Your task to perform on an android device: Open Yahoo.com Image 0: 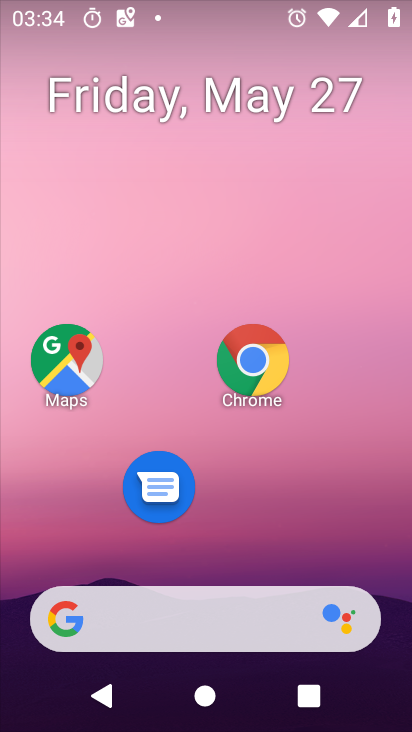
Step 0: click (259, 356)
Your task to perform on an android device: Open Yahoo.com Image 1: 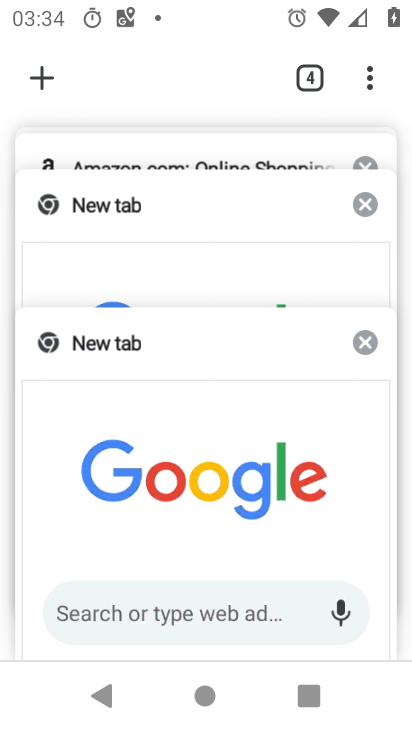
Step 1: press back button
Your task to perform on an android device: Open Yahoo.com Image 2: 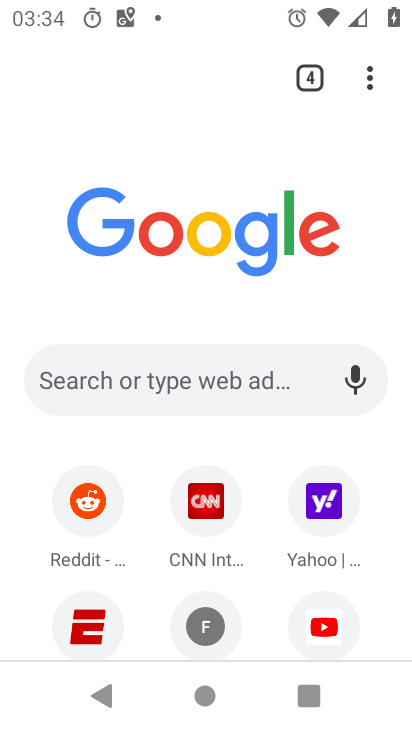
Step 2: click (316, 502)
Your task to perform on an android device: Open Yahoo.com Image 3: 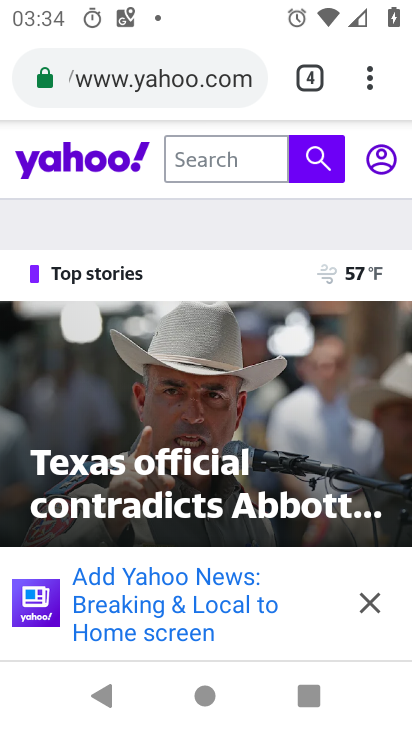
Step 3: task complete